Your task to perform on an android device: Open CNN.com Image 0: 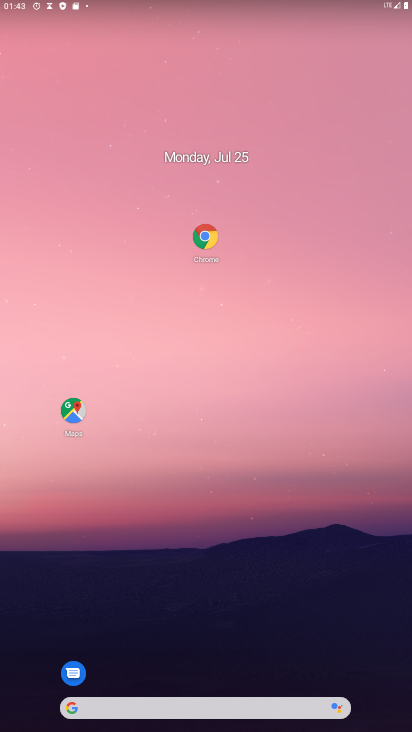
Step 0: drag from (265, 698) to (382, 35)
Your task to perform on an android device: Open CNN.com Image 1: 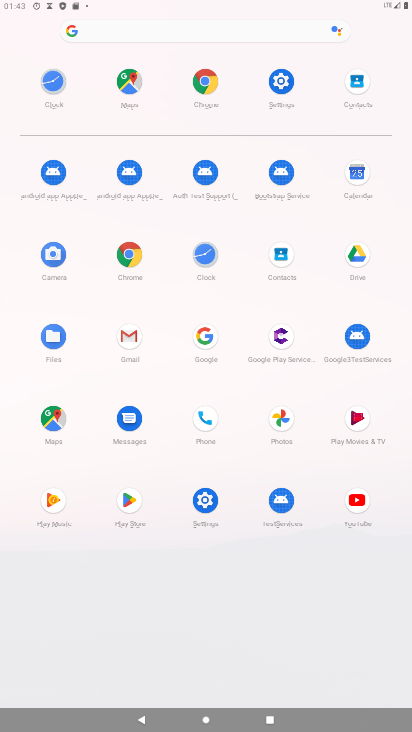
Step 1: click (135, 257)
Your task to perform on an android device: Open CNN.com Image 2: 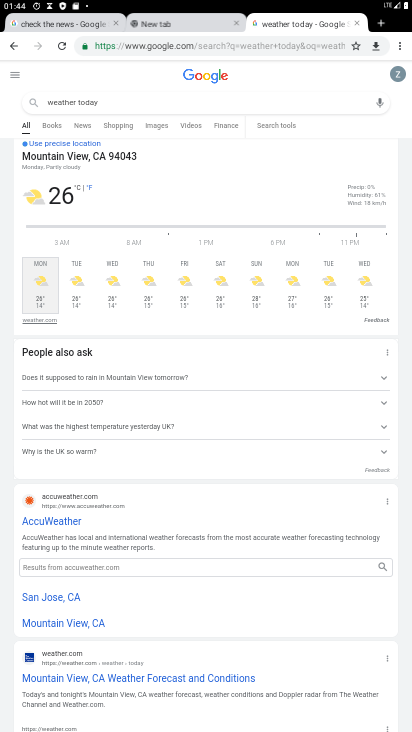
Step 2: click (280, 45)
Your task to perform on an android device: Open CNN.com Image 3: 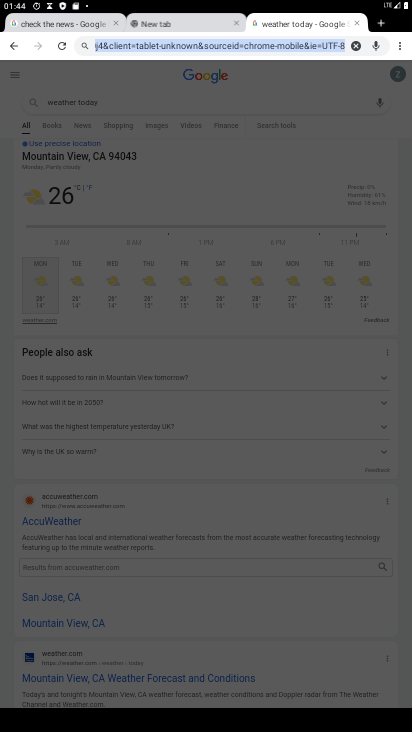
Step 3: type "cnn.com"
Your task to perform on an android device: Open CNN.com Image 4: 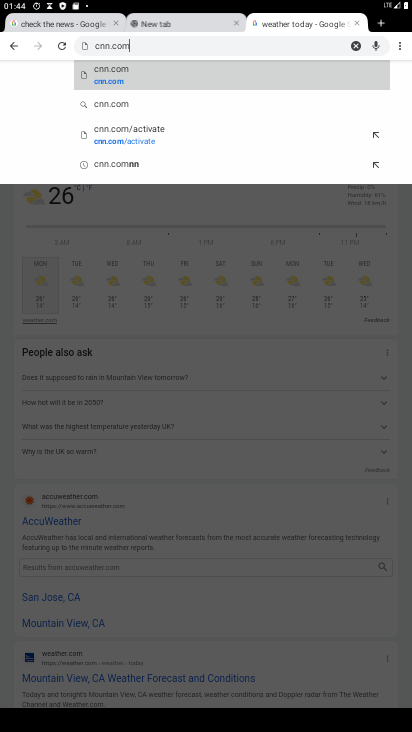
Step 4: click (129, 83)
Your task to perform on an android device: Open CNN.com Image 5: 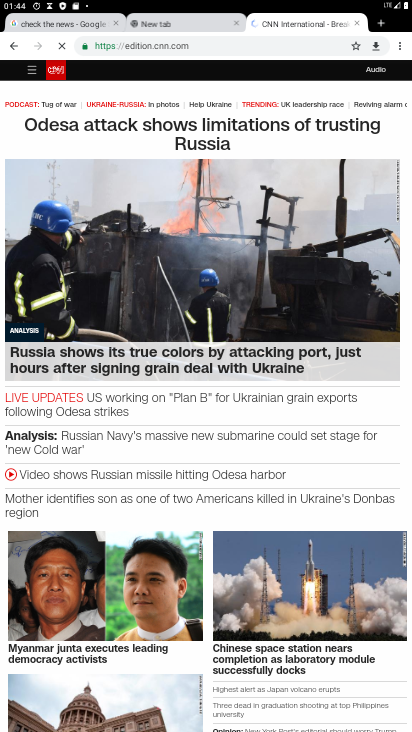
Step 5: task complete